Your task to perform on an android device: turn vacation reply on in the gmail app Image 0: 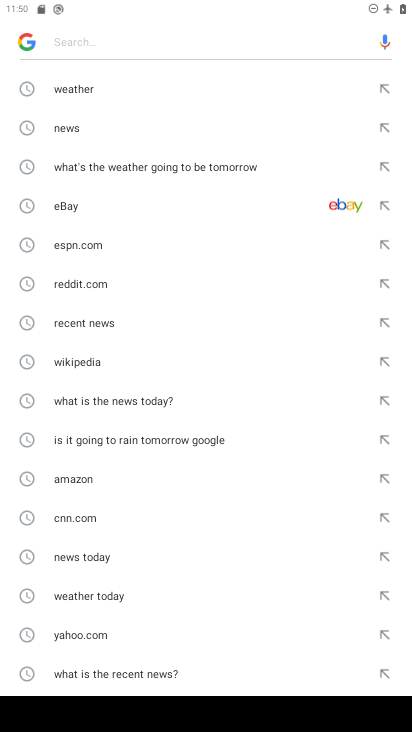
Step 0: press home button
Your task to perform on an android device: turn vacation reply on in the gmail app Image 1: 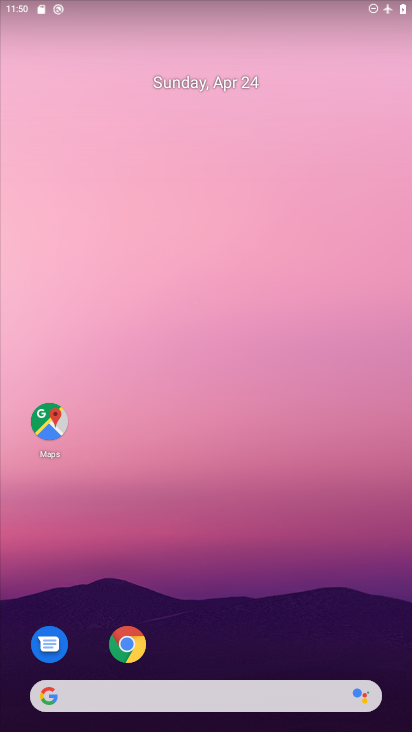
Step 1: drag from (178, 546) to (159, 32)
Your task to perform on an android device: turn vacation reply on in the gmail app Image 2: 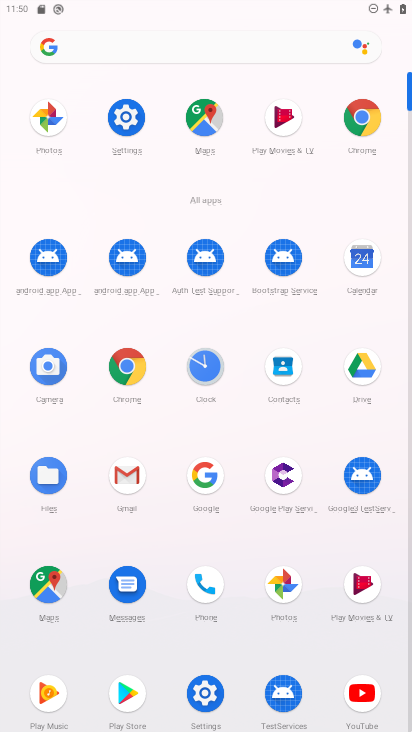
Step 2: click (125, 462)
Your task to perform on an android device: turn vacation reply on in the gmail app Image 3: 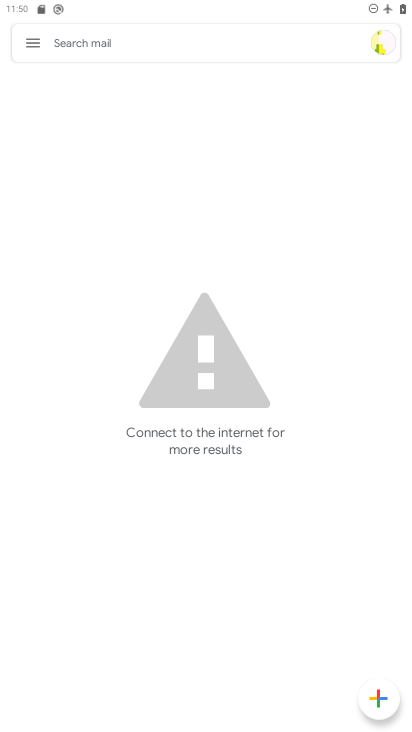
Step 3: click (37, 50)
Your task to perform on an android device: turn vacation reply on in the gmail app Image 4: 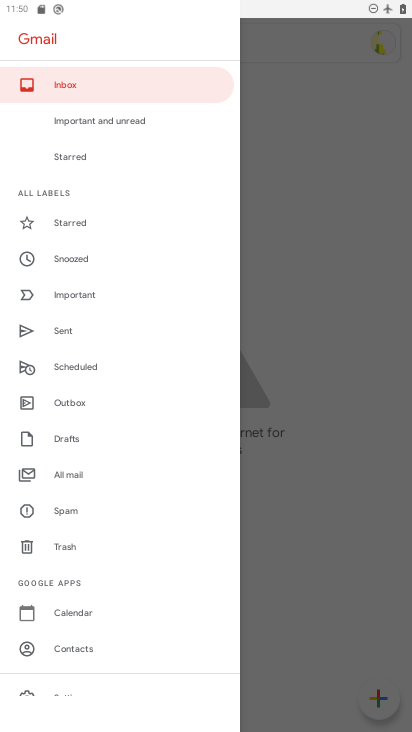
Step 4: drag from (73, 612) to (154, 181)
Your task to perform on an android device: turn vacation reply on in the gmail app Image 5: 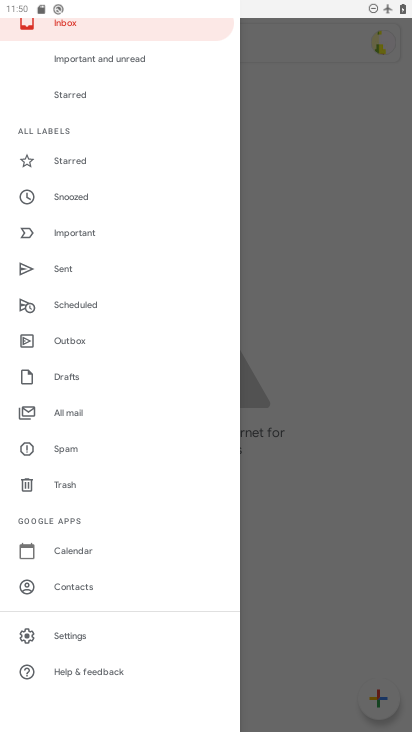
Step 5: click (64, 641)
Your task to perform on an android device: turn vacation reply on in the gmail app Image 6: 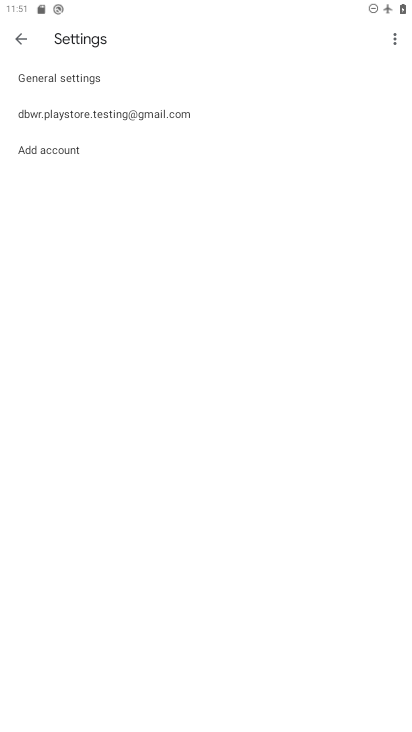
Step 6: click (111, 114)
Your task to perform on an android device: turn vacation reply on in the gmail app Image 7: 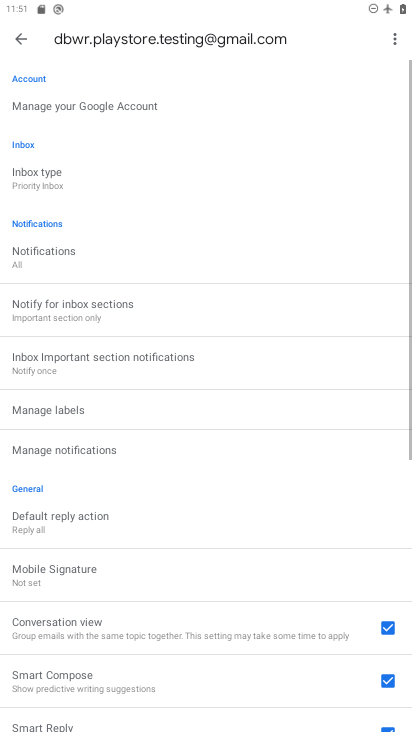
Step 7: drag from (121, 563) to (185, 122)
Your task to perform on an android device: turn vacation reply on in the gmail app Image 8: 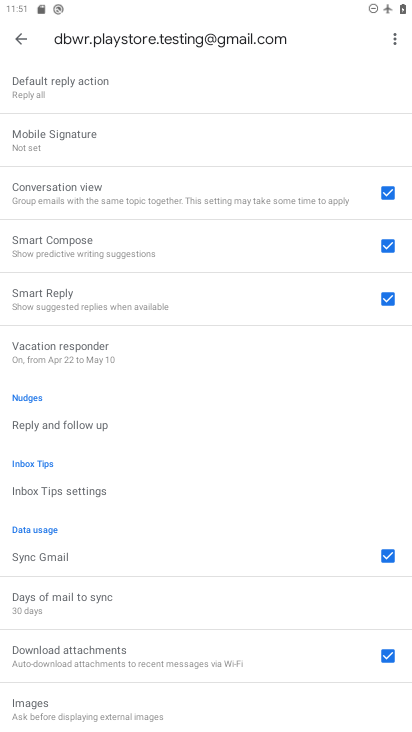
Step 8: drag from (149, 555) to (188, 317)
Your task to perform on an android device: turn vacation reply on in the gmail app Image 9: 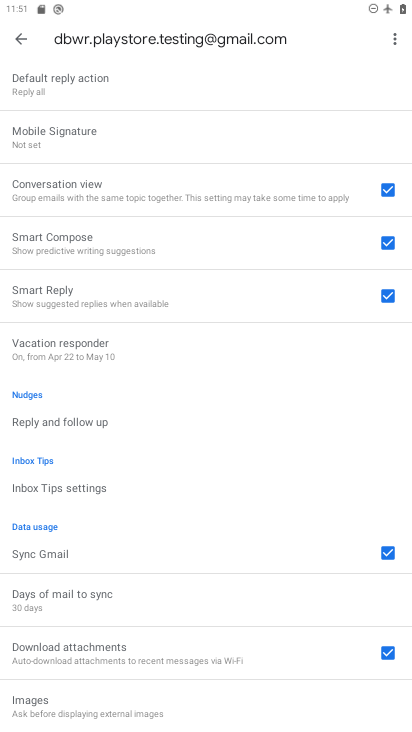
Step 9: click (86, 350)
Your task to perform on an android device: turn vacation reply on in the gmail app Image 10: 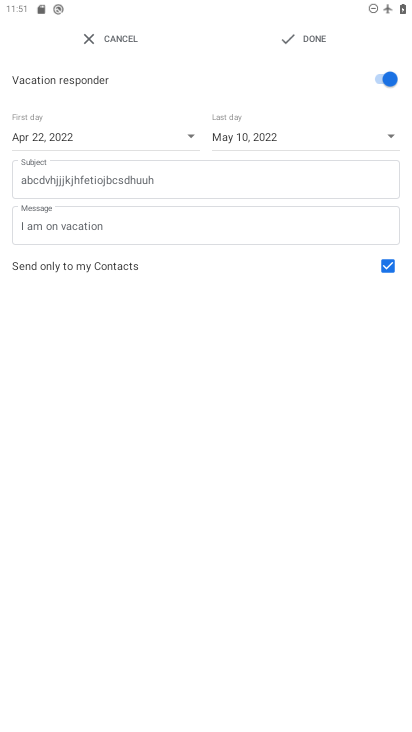
Step 10: task complete